Your task to perform on an android device: check data usage Image 0: 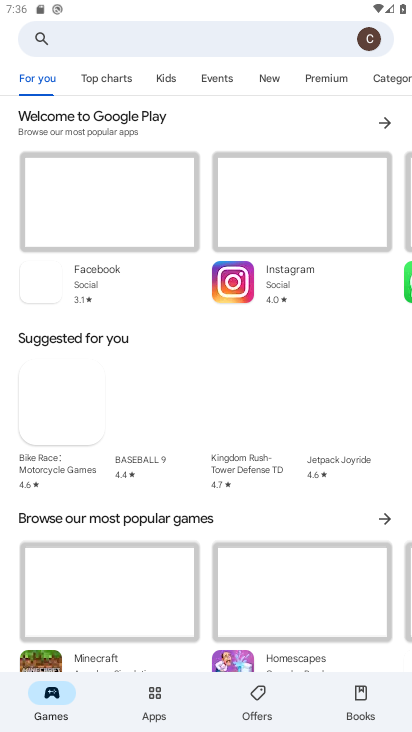
Step 0: press home button
Your task to perform on an android device: check data usage Image 1: 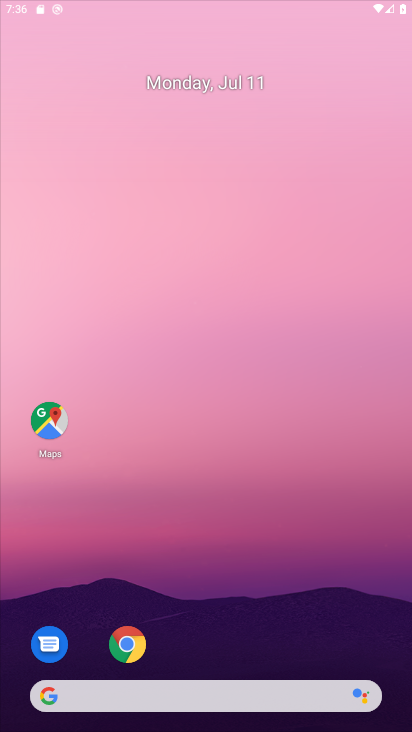
Step 1: drag from (205, 639) to (251, 282)
Your task to perform on an android device: check data usage Image 2: 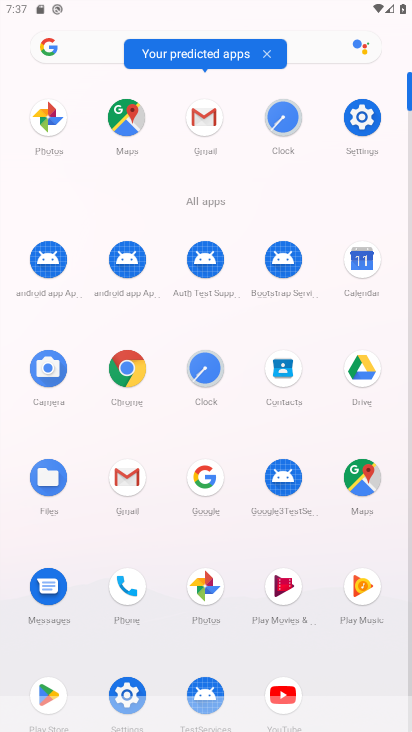
Step 2: click (373, 114)
Your task to perform on an android device: check data usage Image 3: 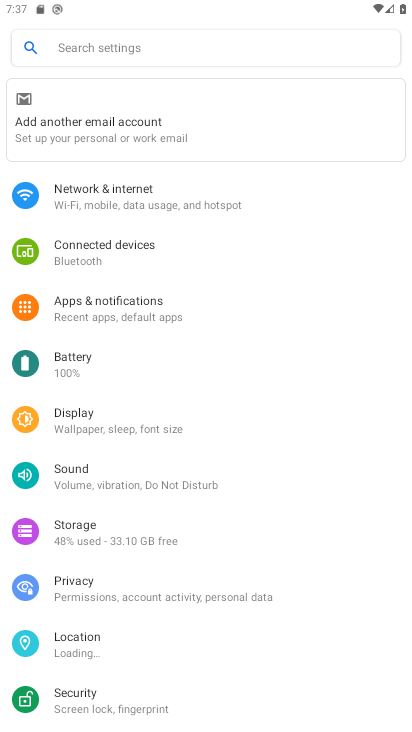
Step 3: click (111, 197)
Your task to perform on an android device: check data usage Image 4: 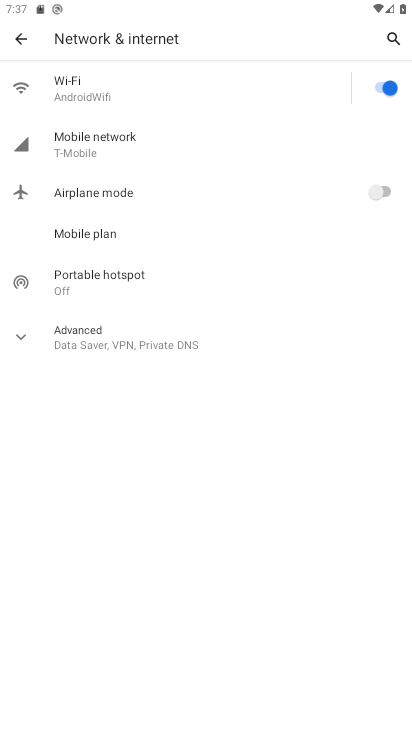
Step 4: click (101, 141)
Your task to perform on an android device: check data usage Image 5: 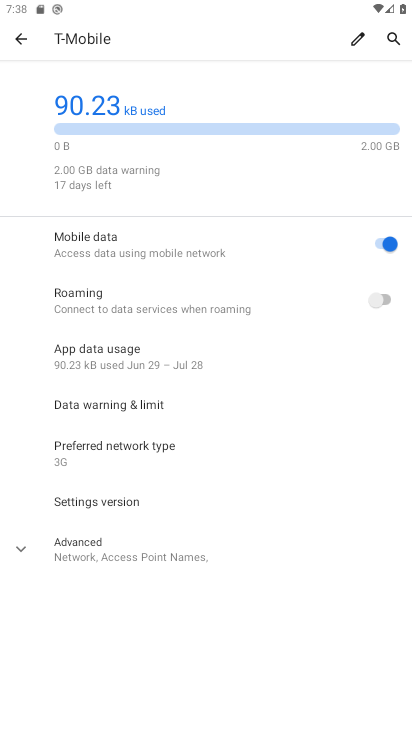
Step 5: task complete